Your task to perform on an android device: open chrome and create a bookmark for the current page Image 0: 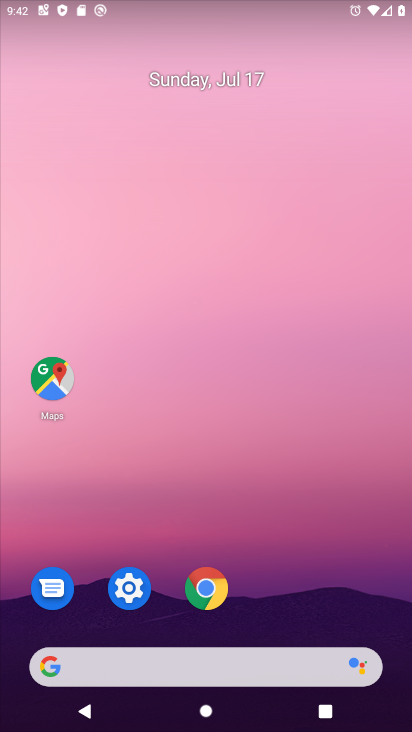
Step 0: drag from (294, 549) to (311, 203)
Your task to perform on an android device: open chrome and create a bookmark for the current page Image 1: 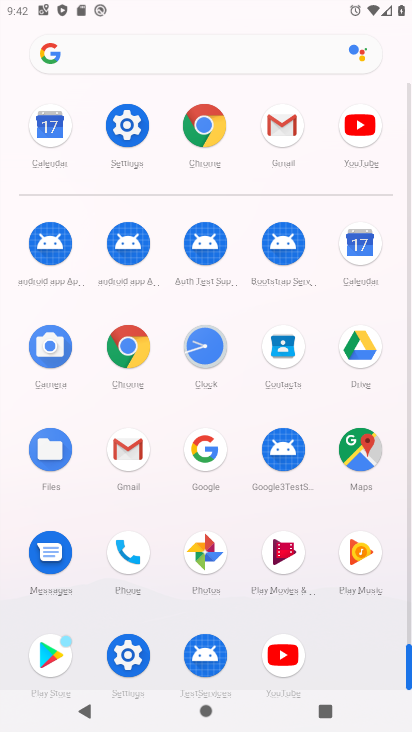
Step 1: click (201, 126)
Your task to perform on an android device: open chrome and create a bookmark for the current page Image 2: 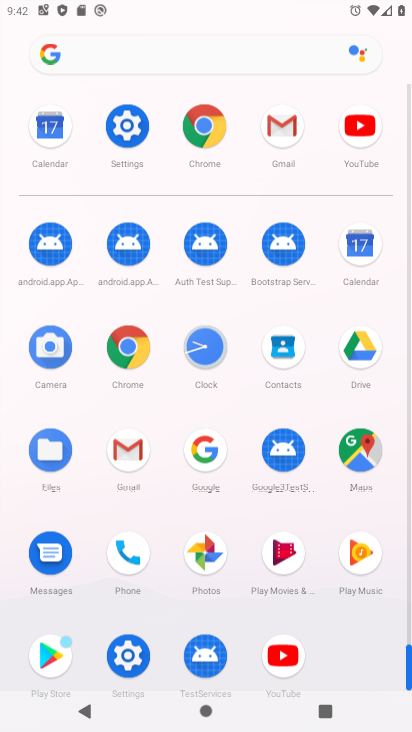
Step 2: click (213, 148)
Your task to perform on an android device: open chrome and create a bookmark for the current page Image 3: 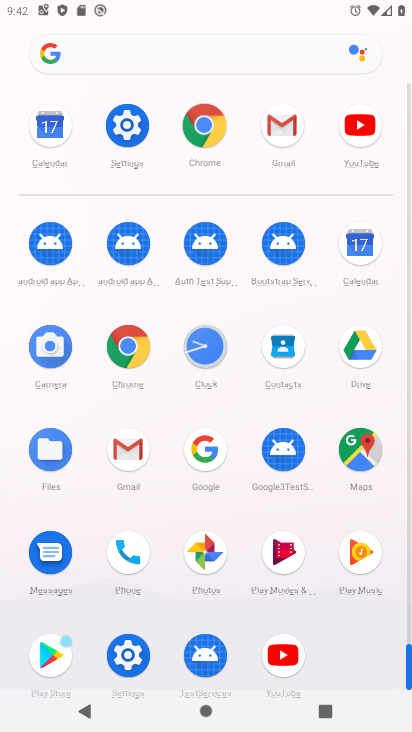
Step 3: click (213, 145)
Your task to perform on an android device: open chrome and create a bookmark for the current page Image 4: 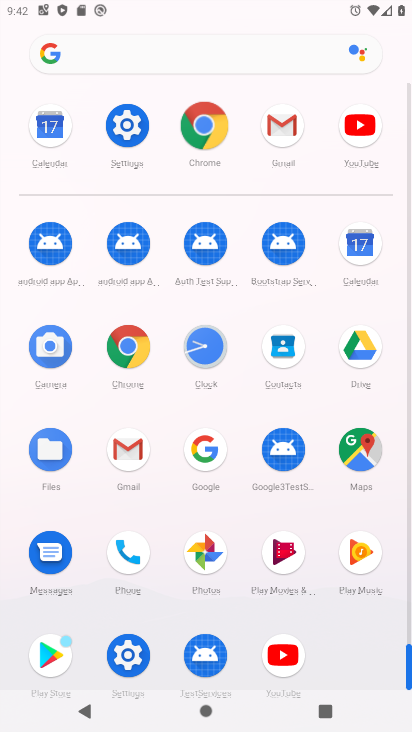
Step 4: click (209, 141)
Your task to perform on an android device: open chrome and create a bookmark for the current page Image 5: 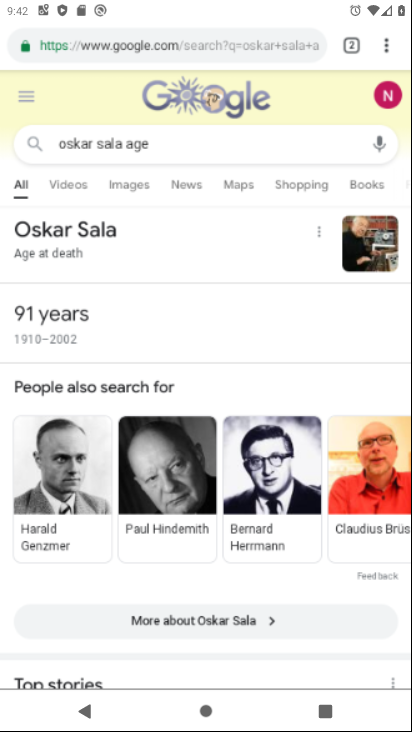
Step 5: click (208, 142)
Your task to perform on an android device: open chrome and create a bookmark for the current page Image 6: 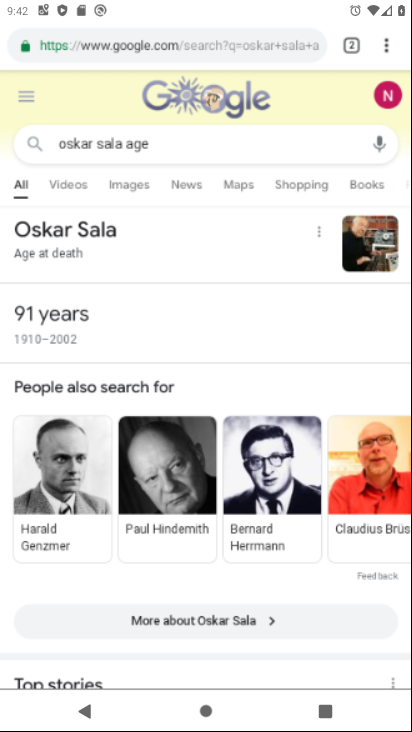
Step 6: click (213, 142)
Your task to perform on an android device: open chrome and create a bookmark for the current page Image 7: 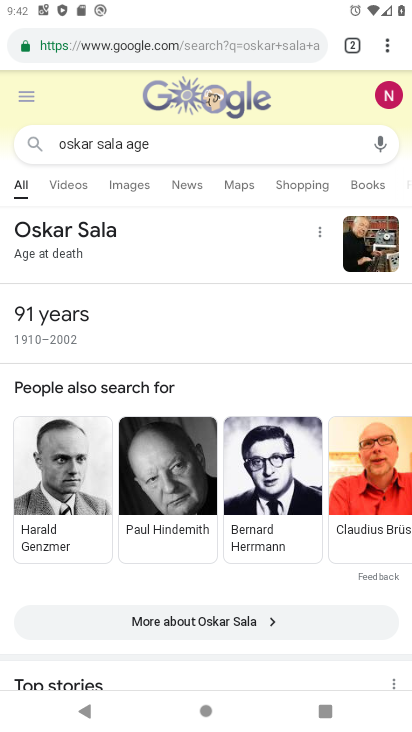
Step 7: drag from (387, 38) to (248, 50)
Your task to perform on an android device: open chrome and create a bookmark for the current page Image 8: 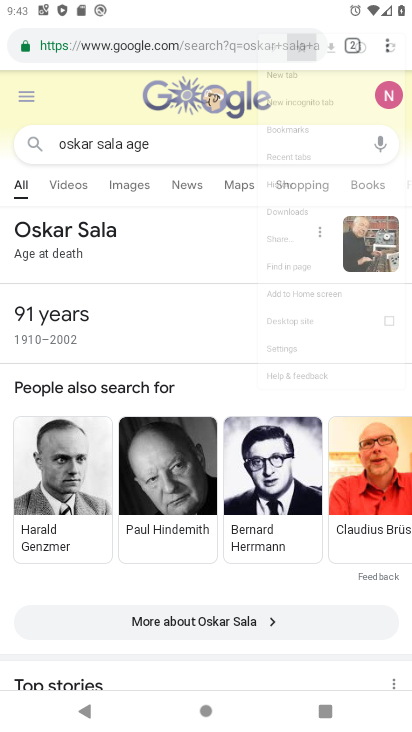
Step 8: click (248, 50)
Your task to perform on an android device: open chrome and create a bookmark for the current page Image 9: 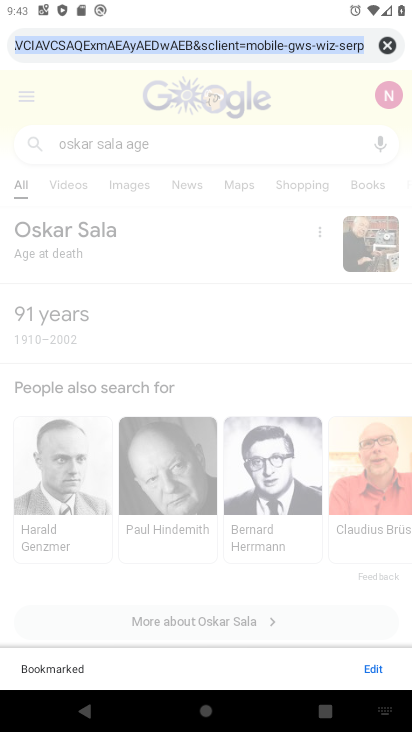
Step 9: task complete